Your task to perform on an android device: see creations saved in the google photos Image 0: 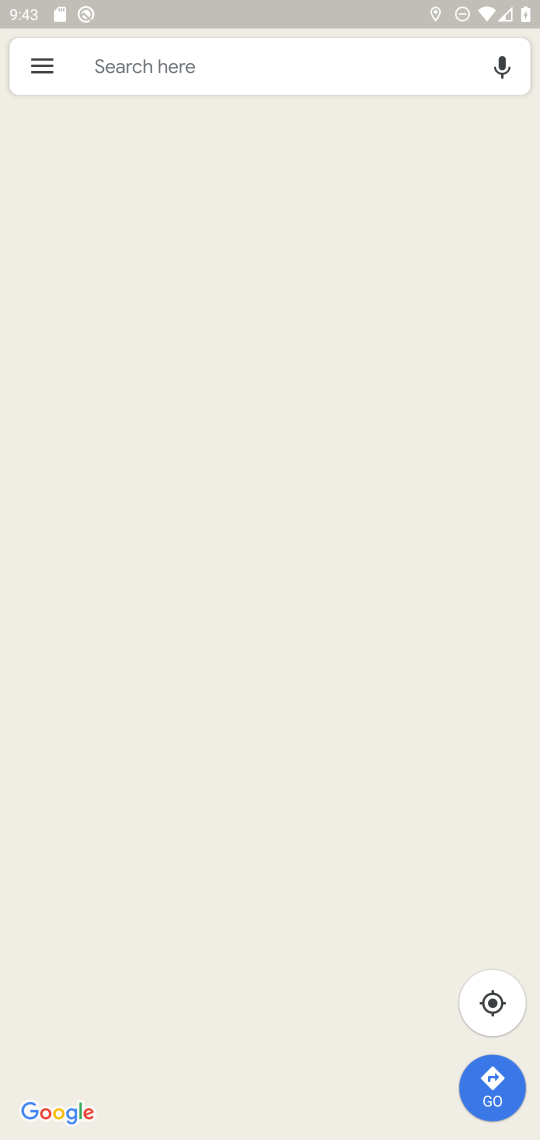
Step 0: press home button
Your task to perform on an android device: see creations saved in the google photos Image 1: 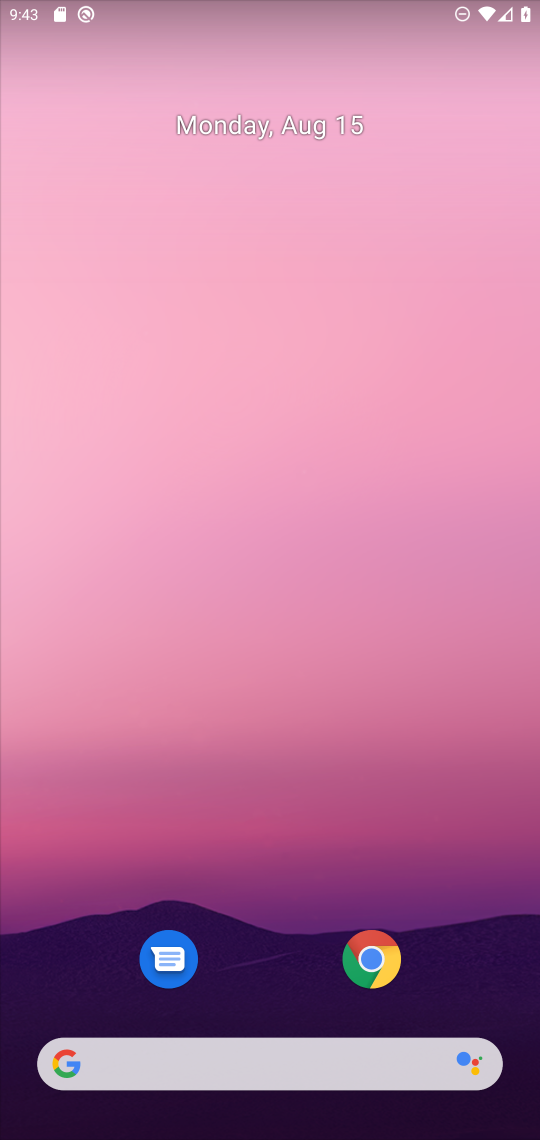
Step 1: drag from (227, 1018) to (498, 787)
Your task to perform on an android device: see creations saved in the google photos Image 2: 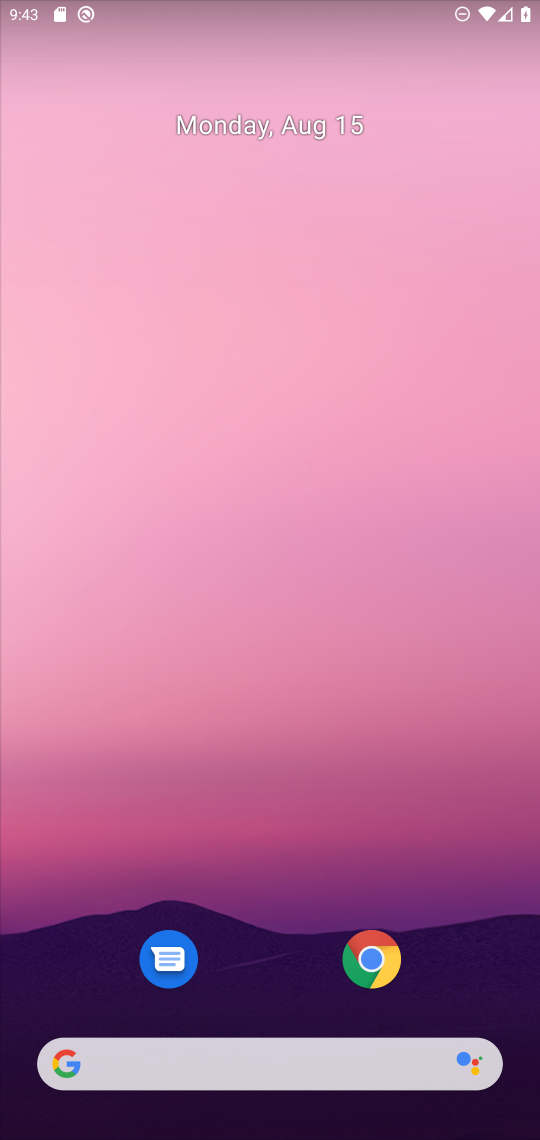
Step 2: drag from (262, 1017) to (351, 16)
Your task to perform on an android device: see creations saved in the google photos Image 3: 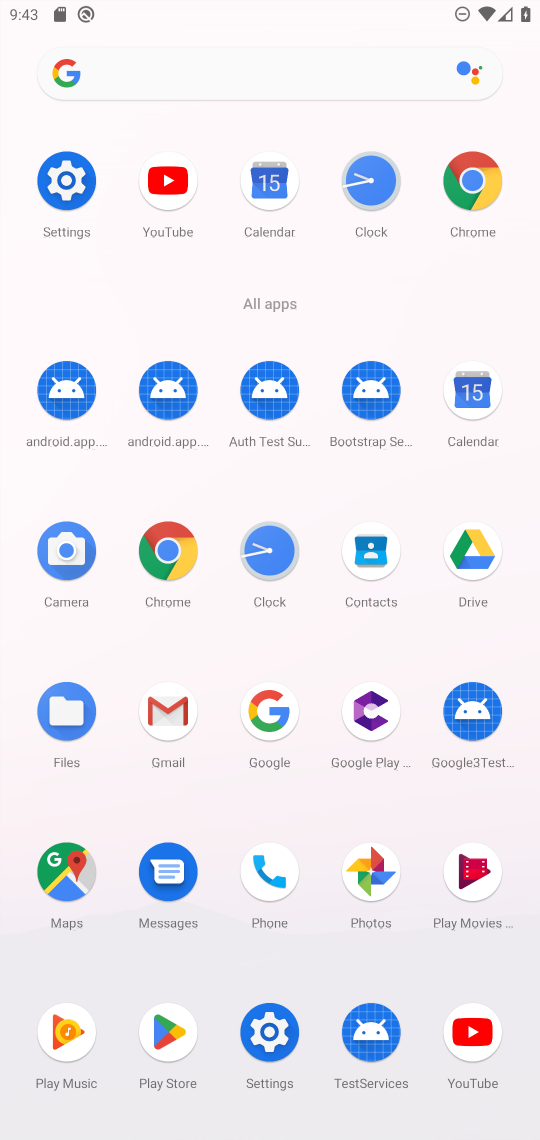
Step 3: click (369, 865)
Your task to perform on an android device: see creations saved in the google photos Image 4: 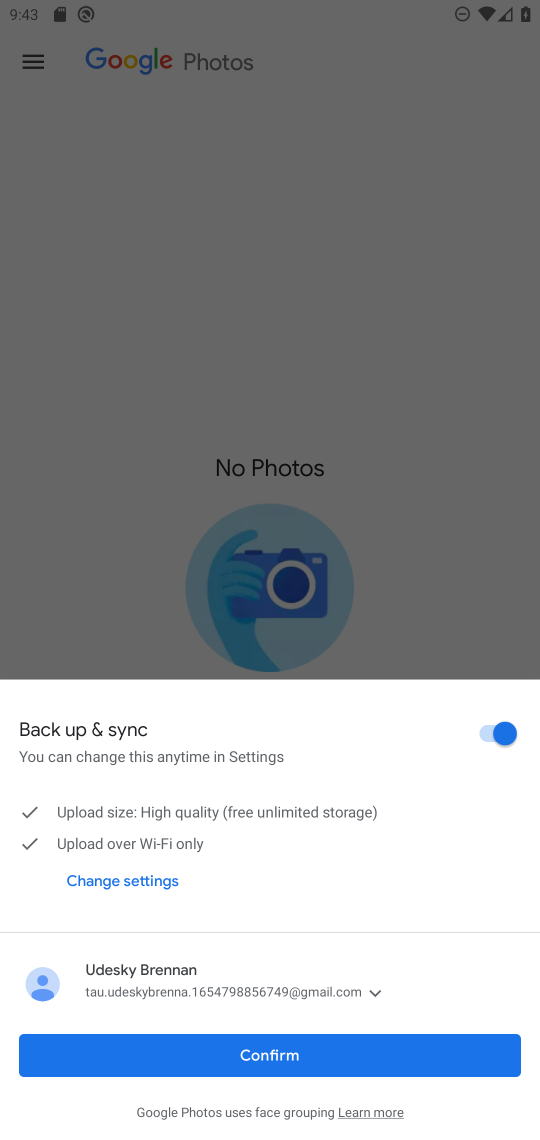
Step 4: click (296, 1051)
Your task to perform on an android device: see creations saved in the google photos Image 5: 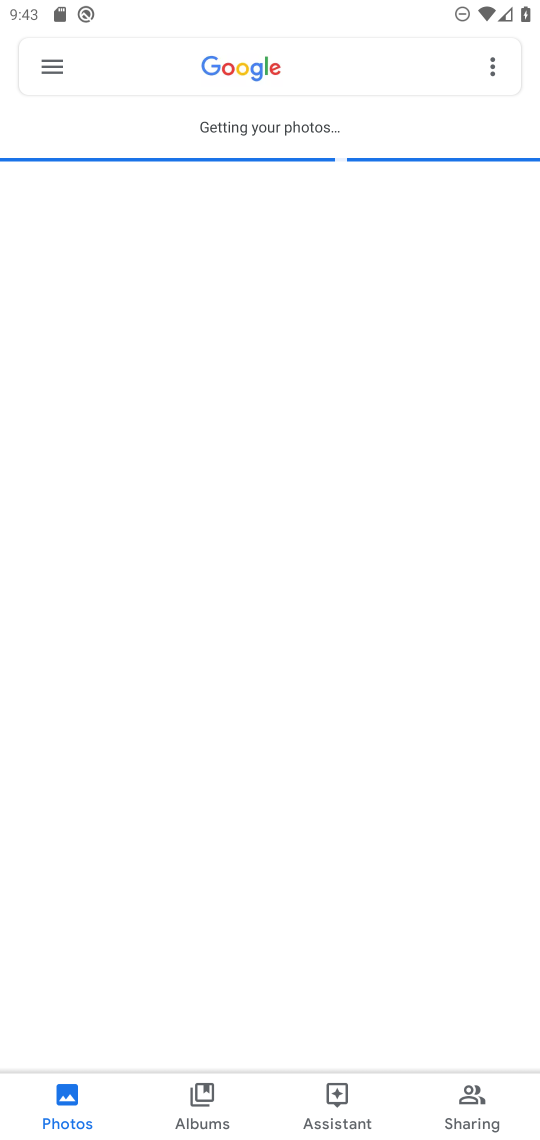
Step 5: click (251, 69)
Your task to perform on an android device: see creations saved in the google photos Image 6: 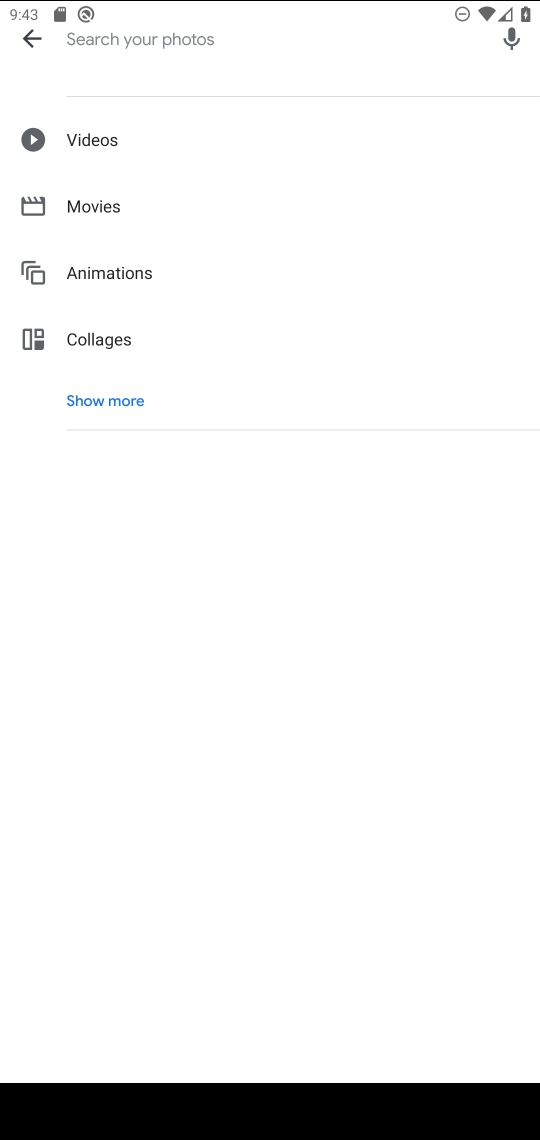
Step 6: click (103, 397)
Your task to perform on an android device: see creations saved in the google photos Image 7: 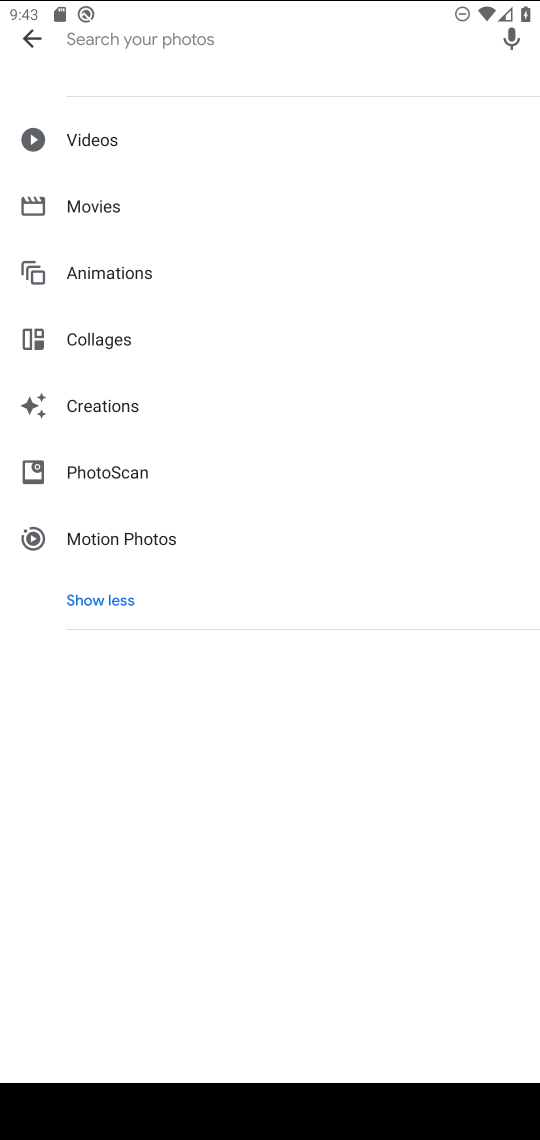
Step 7: click (58, 408)
Your task to perform on an android device: see creations saved in the google photos Image 8: 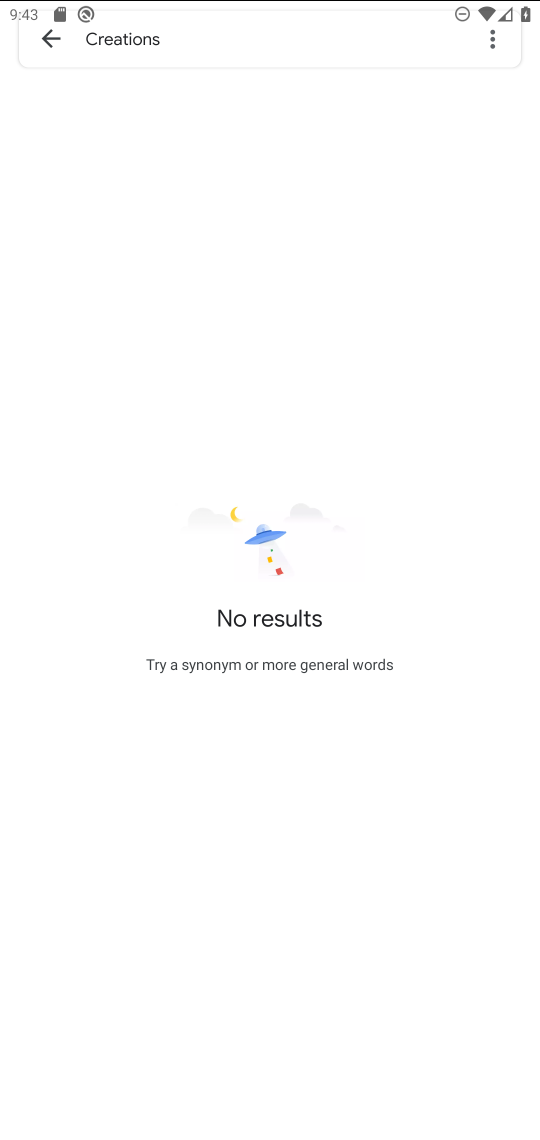
Step 8: task complete